Your task to perform on an android device: turn off notifications in google photos Image 0: 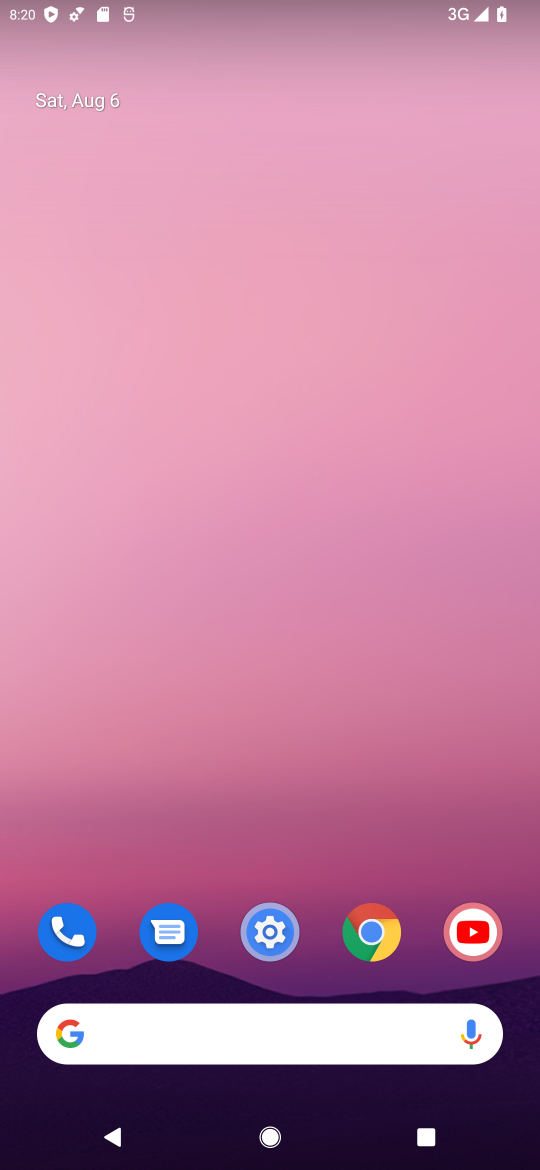
Step 0: drag from (216, 1051) to (185, 436)
Your task to perform on an android device: turn off notifications in google photos Image 1: 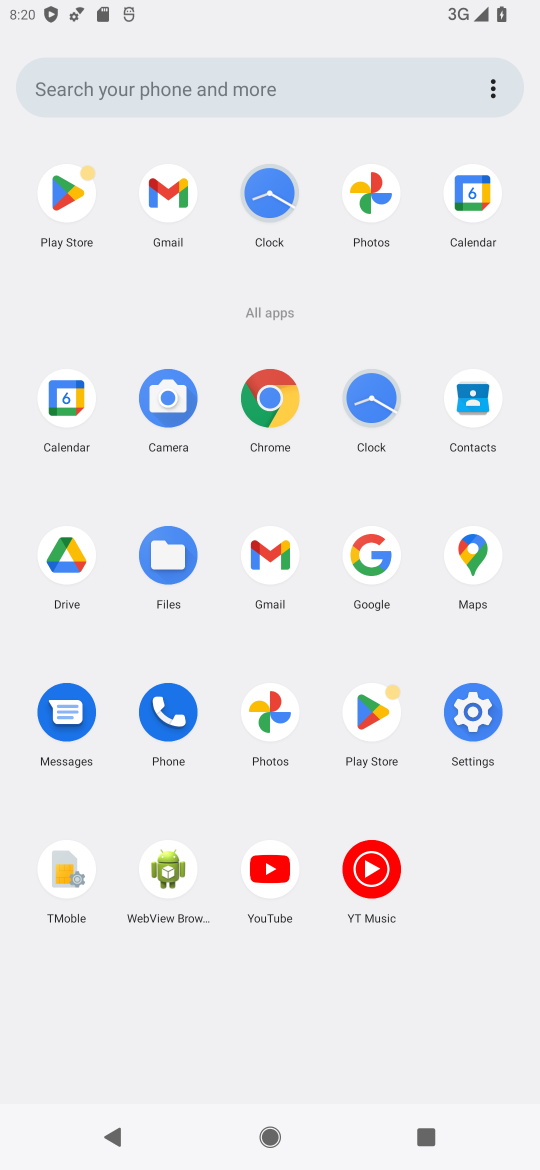
Step 1: click (371, 197)
Your task to perform on an android device: turn off notifications in google photos Image 2: 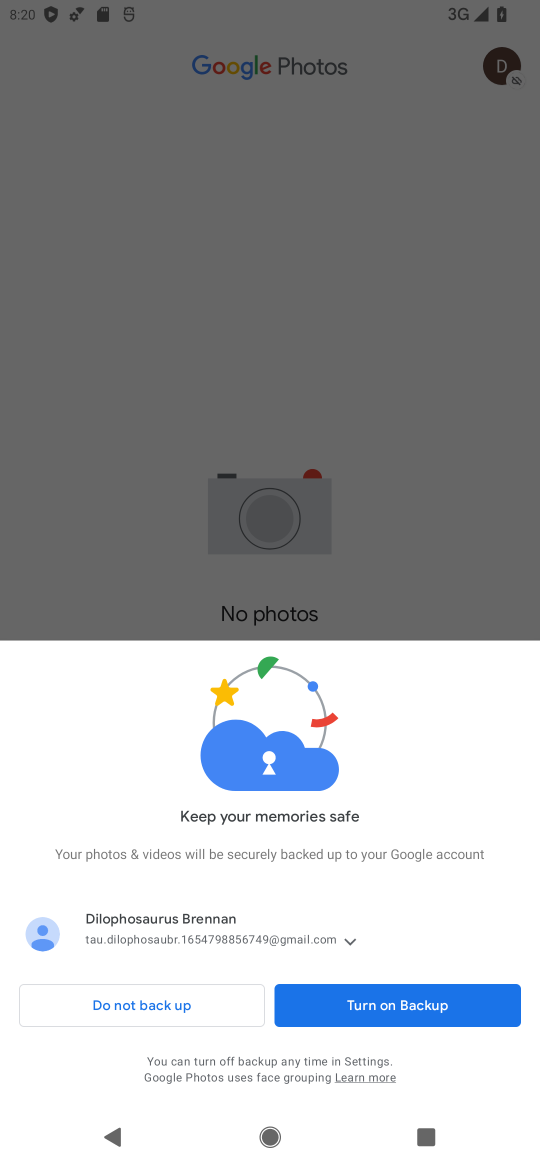
Step 2: click (353, 1010)
Your task to perform on an android device: turn off notifications in google photos Image 3: 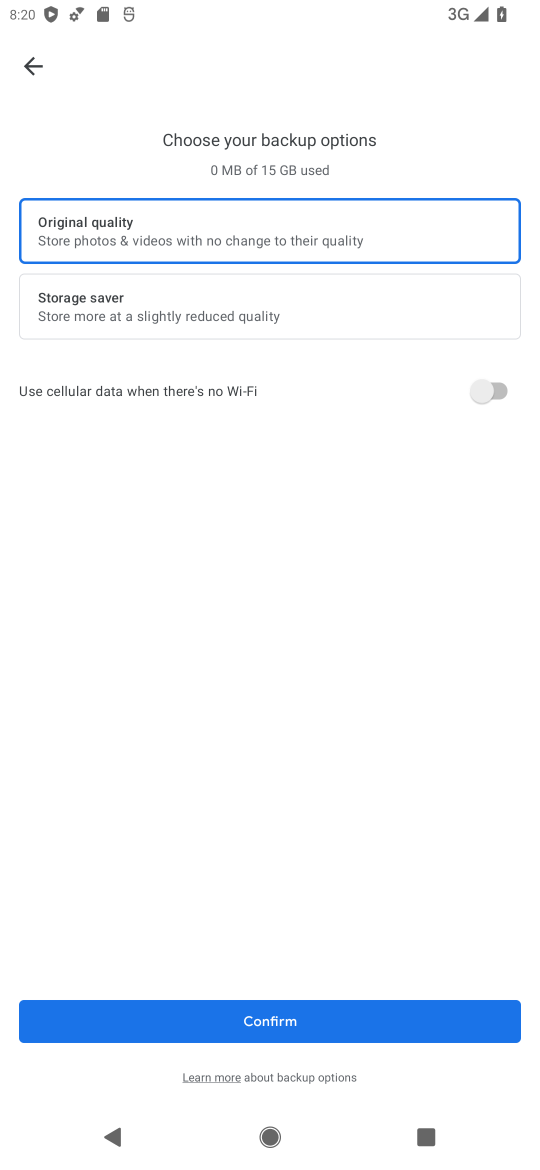
Step 3: click (353, 1010)
Your task to perform on an android device: turn off notifications in google photos Image 4: 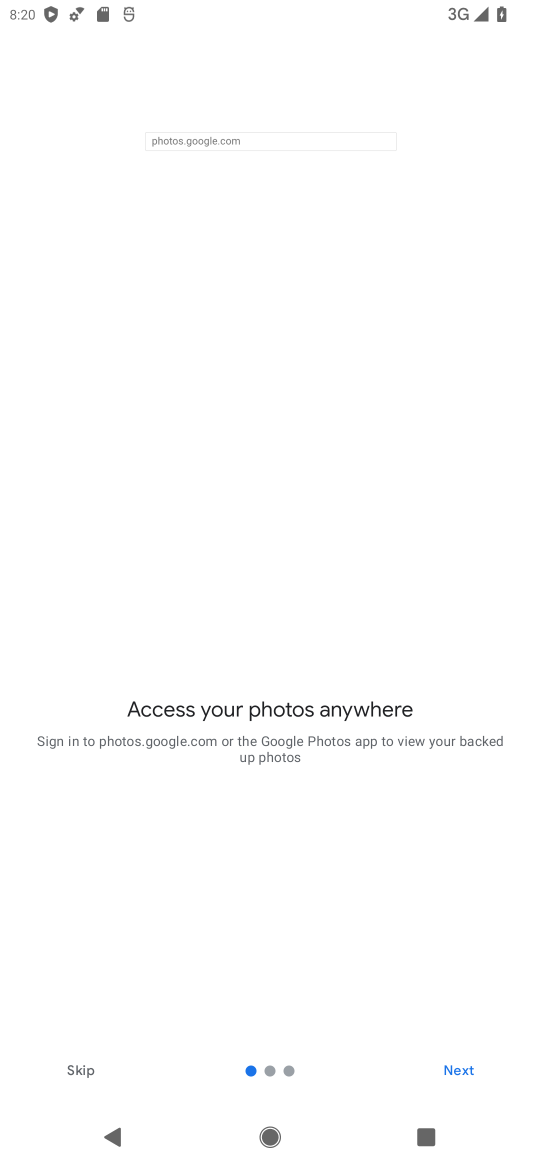
Step 4: click (83, 1074)
Your task to perform on an android device: turn off notifications in google photos Image 5: 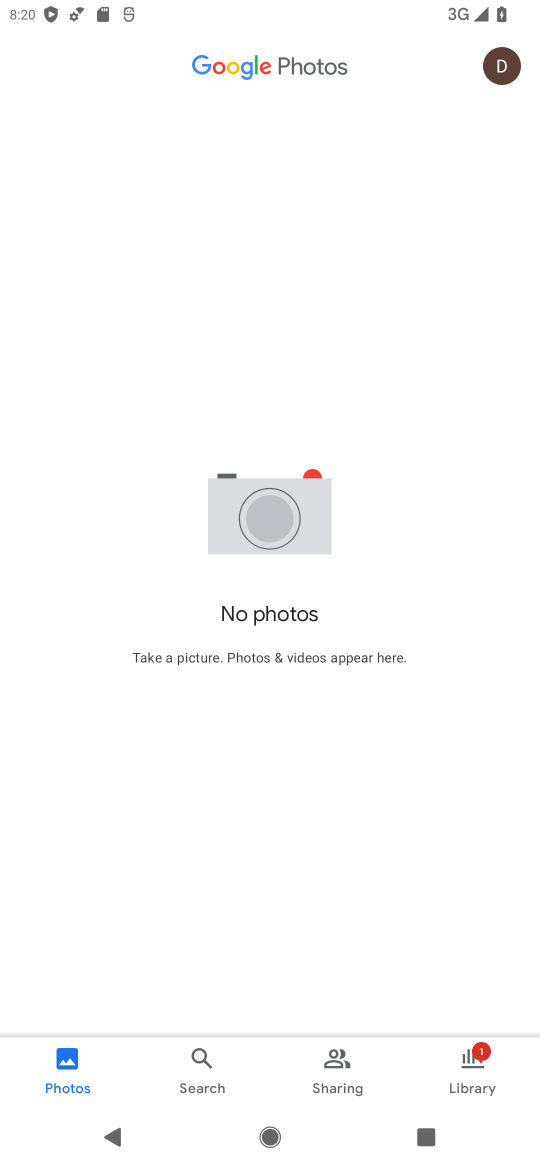
Step 5: click (499, 73)
Your task to perform on an android device: turn off notifications in google photos Image 6: 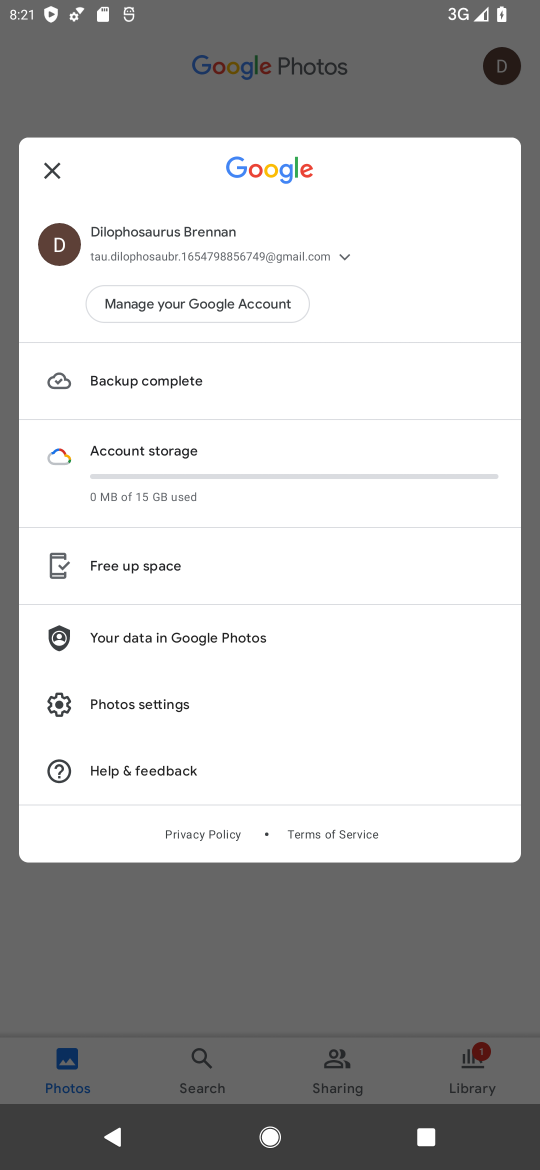
Step 6: click (152, 700)
Your task to perform on an android device: turn off notifications in google photos Image 7: 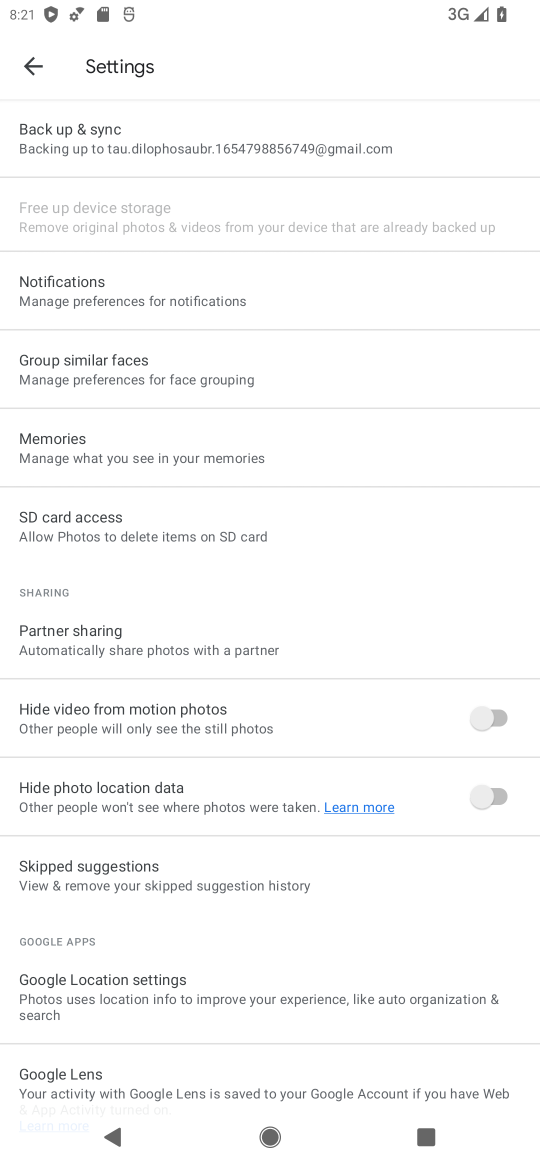
Step 7: click (170, 300)
Your task to perform on an android device: turn off notifications in google photos Image 8: 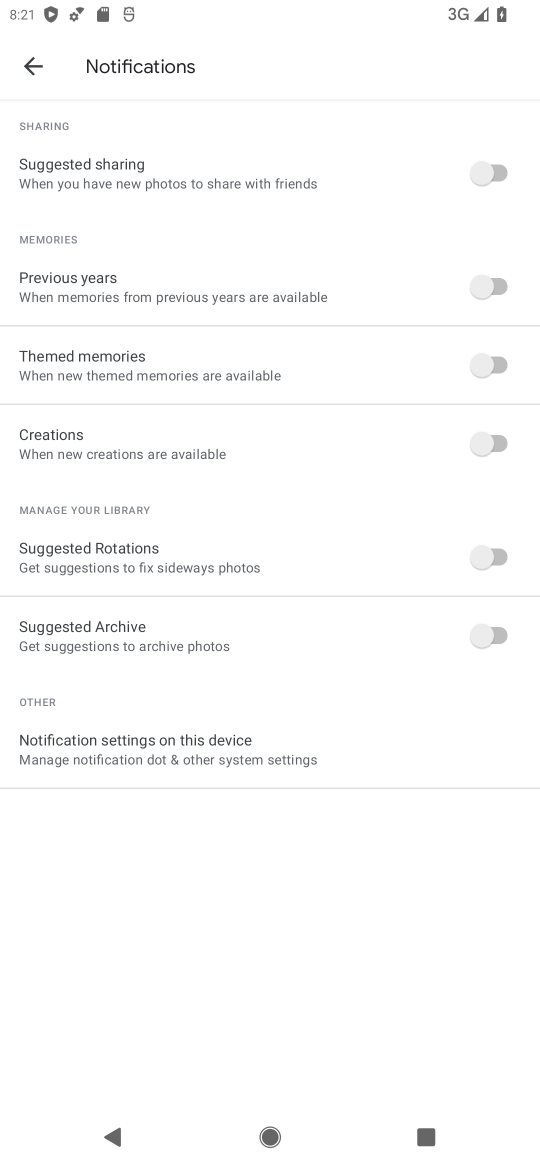
Step 8: click (198, 748)
Your task to perform on an android device: turn off notifications in google photos Image 9: 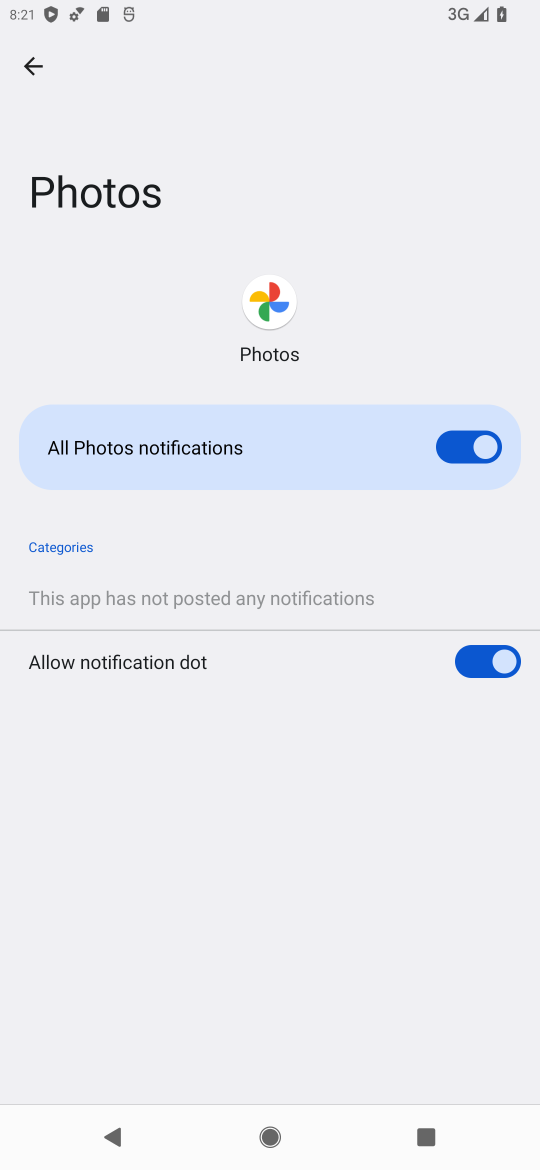
Step 9: click (451, 463)
Your task to perform on an android device: turn off notifications in google photos Image 10: 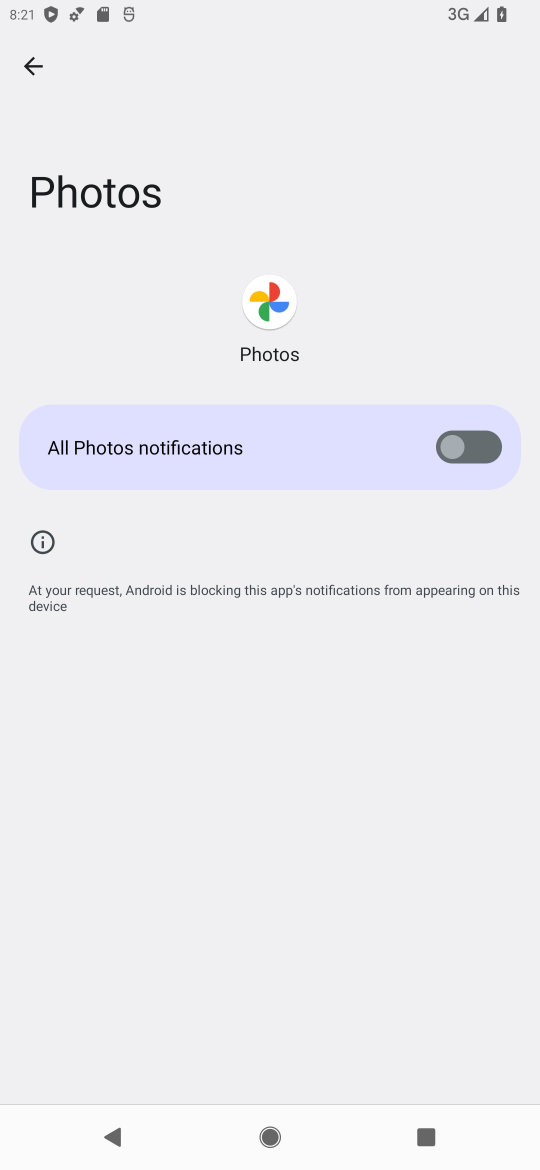
Step 10: task complete